Your task to perform on an android device: turn smart compose on in the gmail app Image 0: 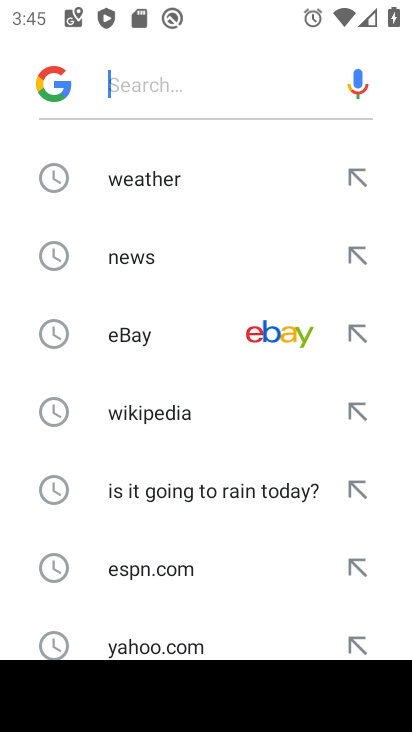
Step 0: press home button
Your task to perform on an android device: turn smart compose on in the gmail app Image 1: 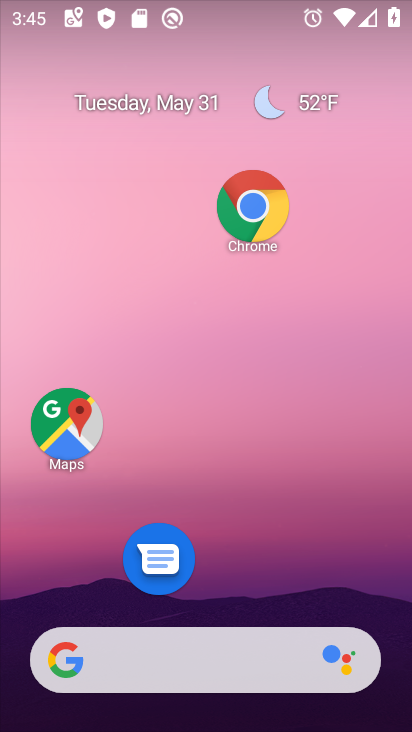
Step 1: drag from (221, 586) to (210, 185)
Your task to perform on an android device: turn smart compose on in the gmail app Image 2: 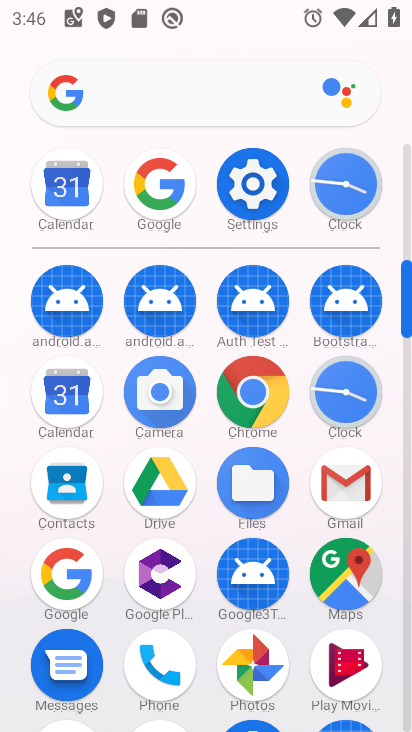
Step 2: click (348, 468)
Your task to perform on an android device: turn smart compose on in the gmail app Image 3: 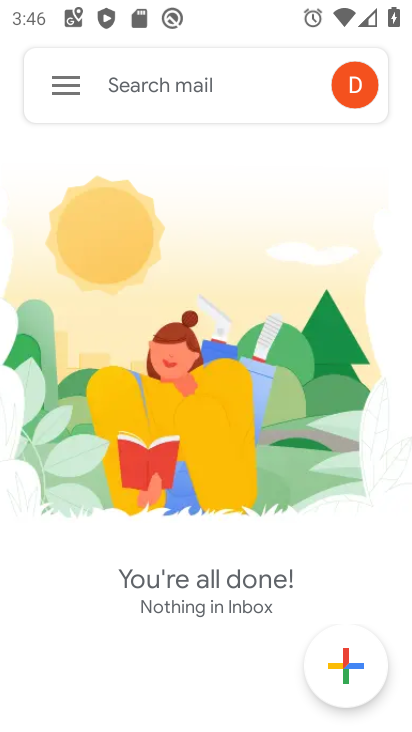
Step 3: click (64, 91)
Your task to perform on an android device: turn smart compose on in the gmail app Image 4: 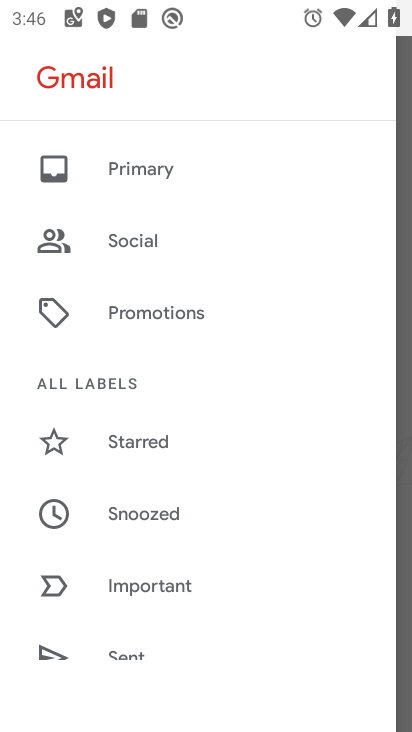
Step 4: drag from (192, 596) to (185, 256)
Your task to perform on an android device: turn smart compose on in the gmail app Image 5: 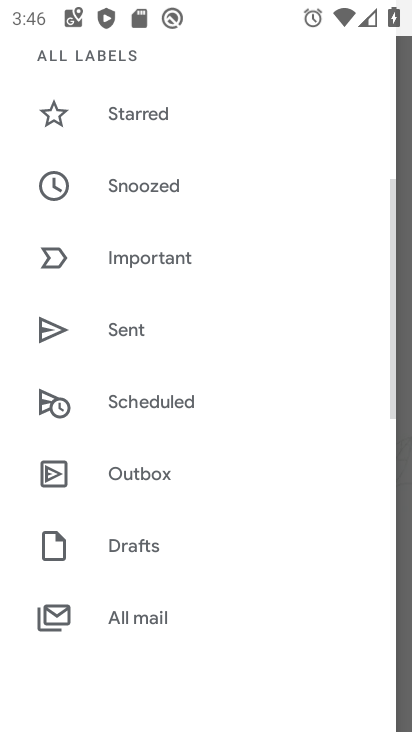
Step 5: drag from (187, 533) to (208, 258)
Your task to perform on an android device: turn smart compose on in the gmail app Image 6: 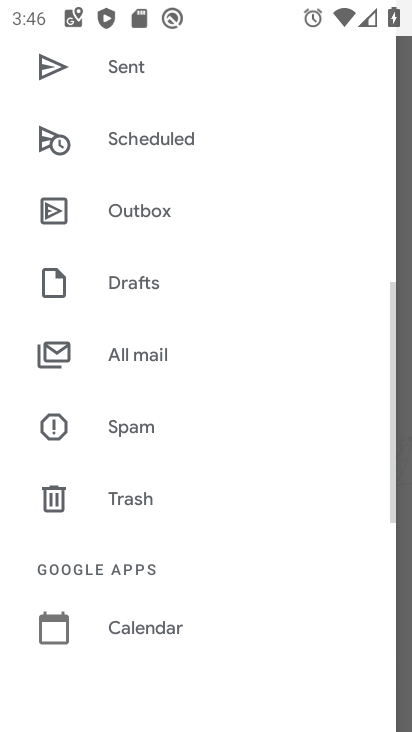
Step 6: drag from (194, 512) to (200, 293)
Your task to perform on an android device: turn smart compose on in the gmail app Image 7: 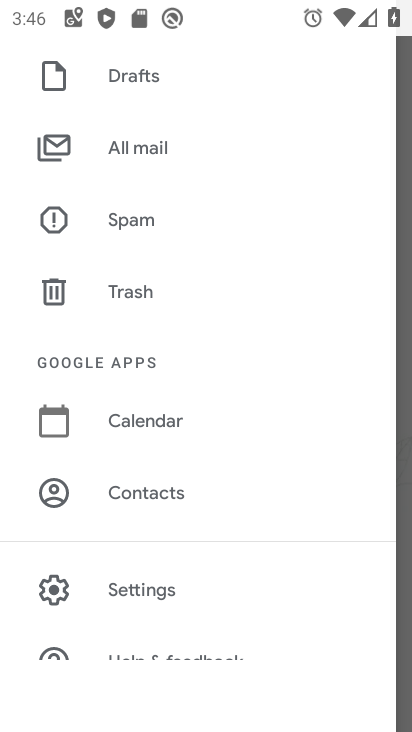
Step 7: click (173, 574)
Your task to perform on an android device: turn smart compose on in the gmail app Image 8: 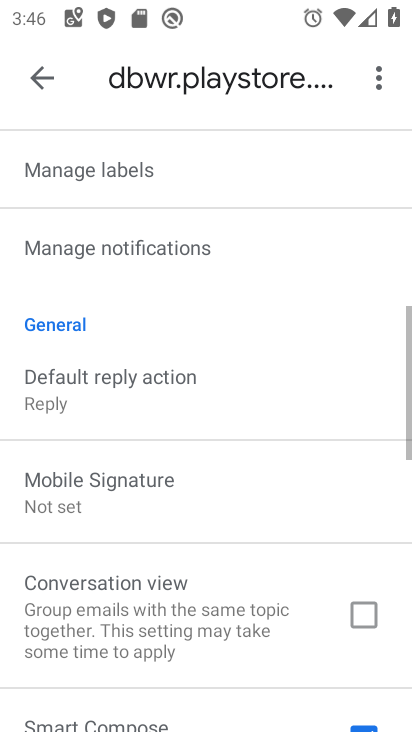
Step 8: task complete